Your task to perform on an android device: Go to battery settings Image 0: 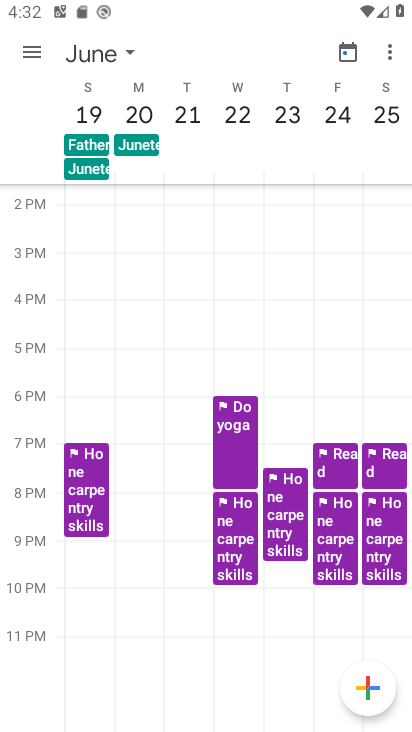
Step 0: press home button
Your task to perform on an android device: Go to battery settings Image 1: 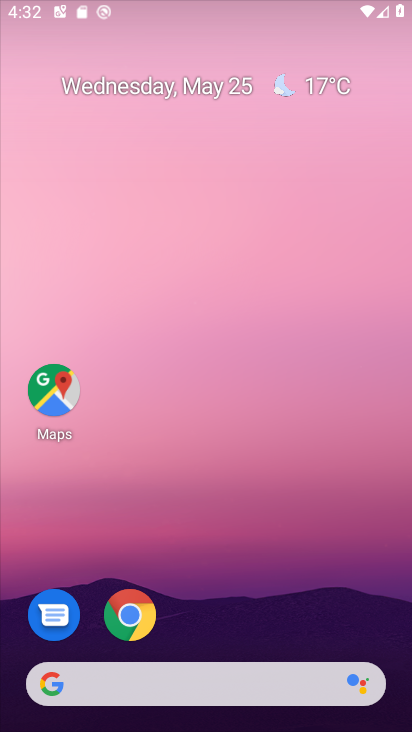
Step 1: drag from (234, 298) to (178, 152)
Your task to perform on an android device: Go to battery settings Image 2: 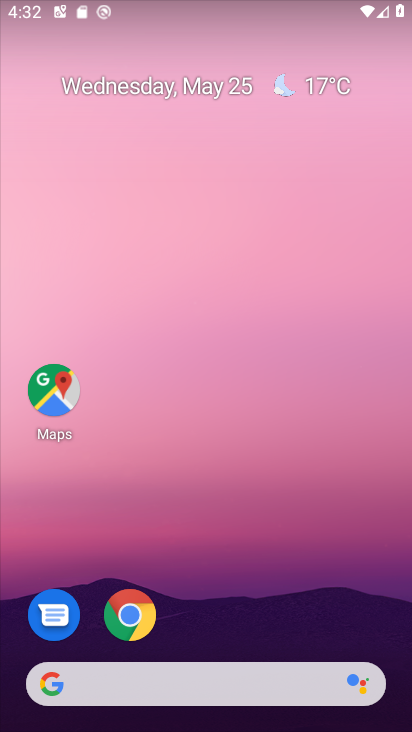
Step 2: drag from (274, 589) to (193, 65)
Your task to perform on an android device: Go to battery settings Image 3: 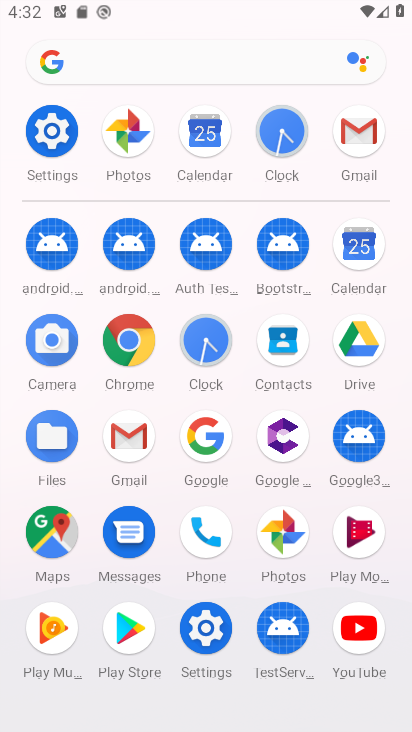
Step 3: click (67, 110)
Your task to perform on an android device: Go to battery settings Image 4: 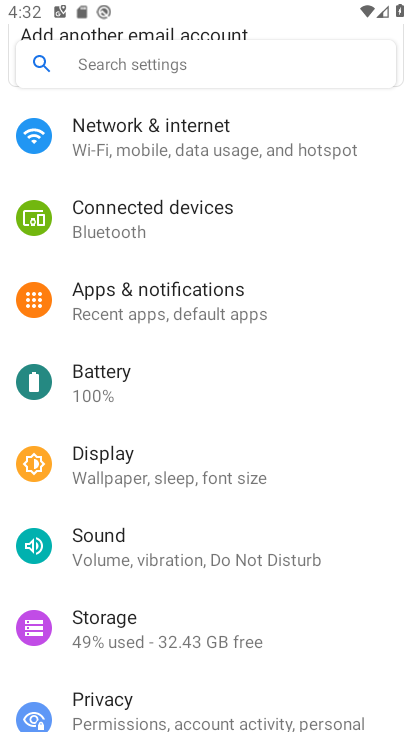
Step 4: click (144, 388)
Your task to perform on an android device: Go to battery settings Image 5: 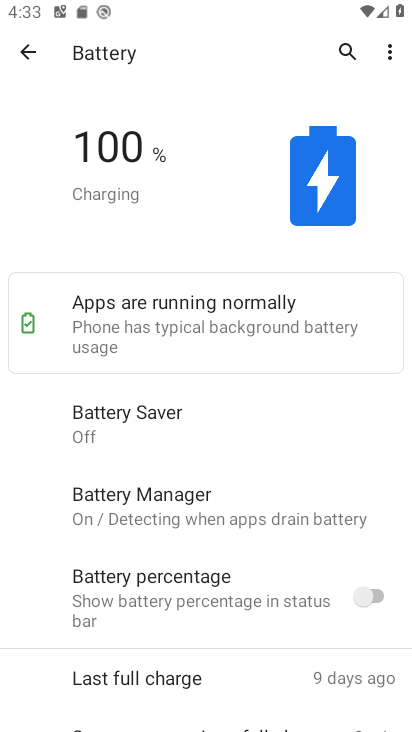
Step 5: task complete